Your task to perform on an android device: remove spam from my inbox in the gmail app Image 0: 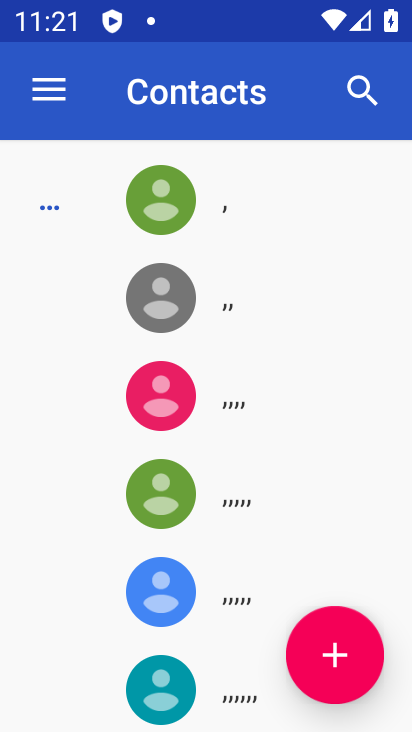
Step 0: press home button
Your task to perform on an android device: remove spam from my inbox in the gmail app Image 1: 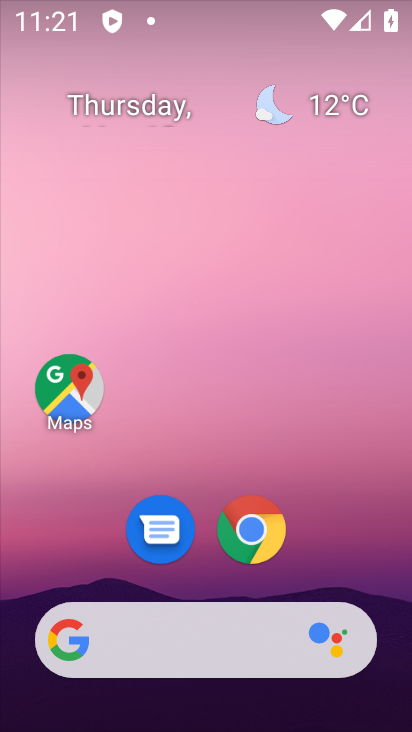
Step 1: drag from (335, 522) to (357, 228)
Your task to perform on an android device: remove spam from my inbox in the gmail app Image 2: 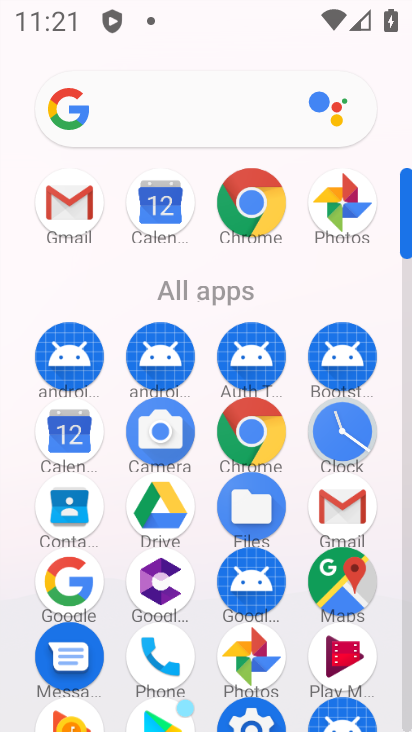
Step 2: click (343, 503)
Your task to perform on an android device: remove spam from my inbox in the gmail app Image 3: 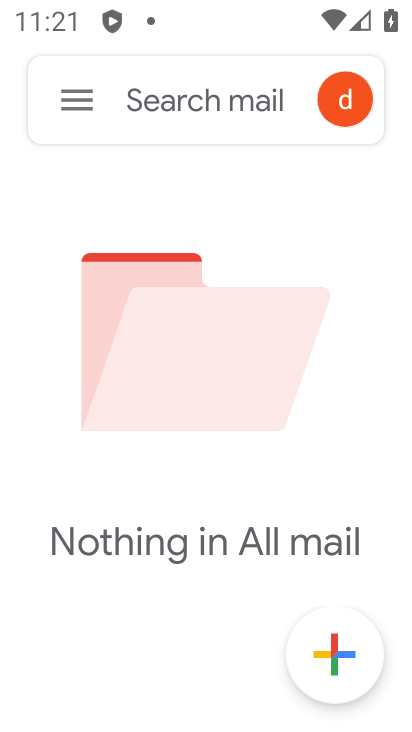
Step 3: click (65, 115)
Your task to perform on an android device: remove spam from my inbox in the gmail app Image 4: 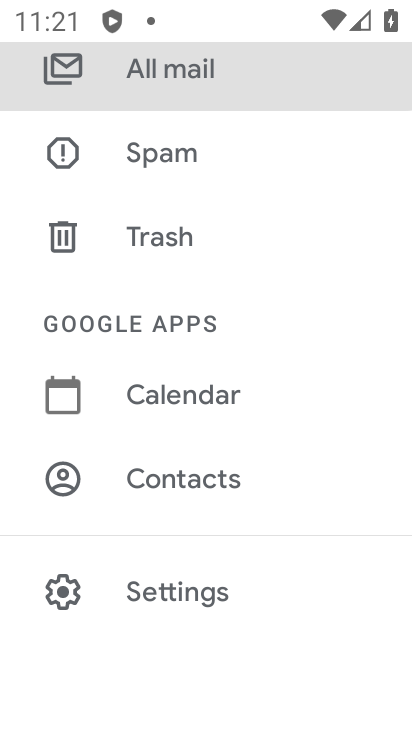
Step 4: click (153, 153)
Your task to perform on an android device: remove spam from my inbox in the gmail app Image 5: 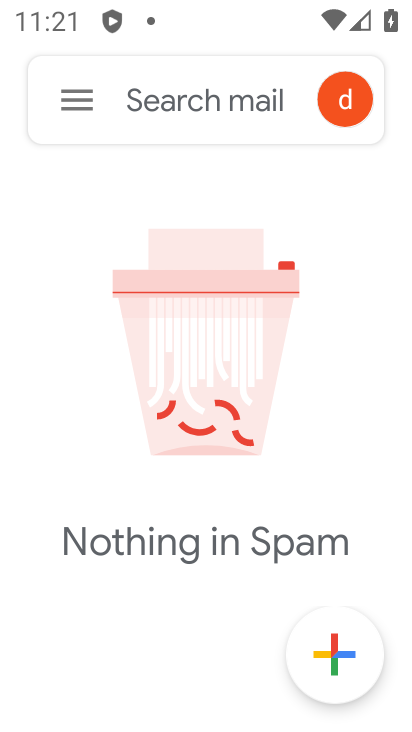
Step 5: task complete